Your task to perform on an android device: open app "LiveIn - Share Your Moment" Image 0: 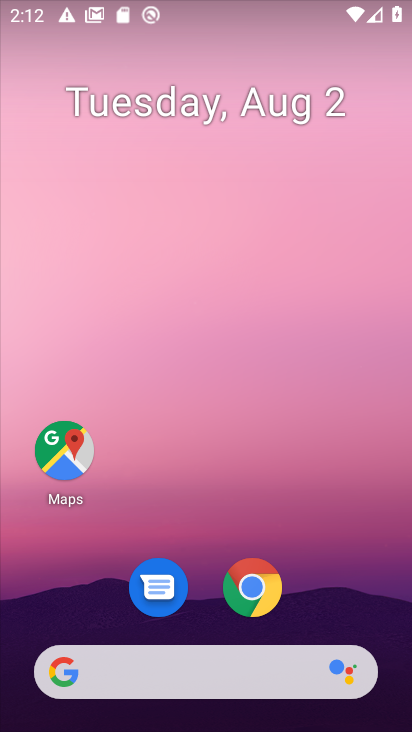
Step 0: drag from (201, 568) to (240, 186)
Your task to perform on an android device: open app "LiveIn - Share Your Moment" Image 1: 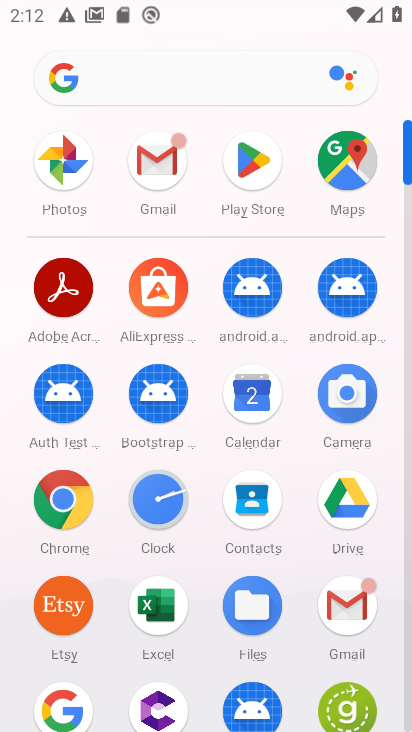
Step 1: click (242, 183)
Your task to perform on an android device: open app "LiveIn - Share Your Moment" Image 2: 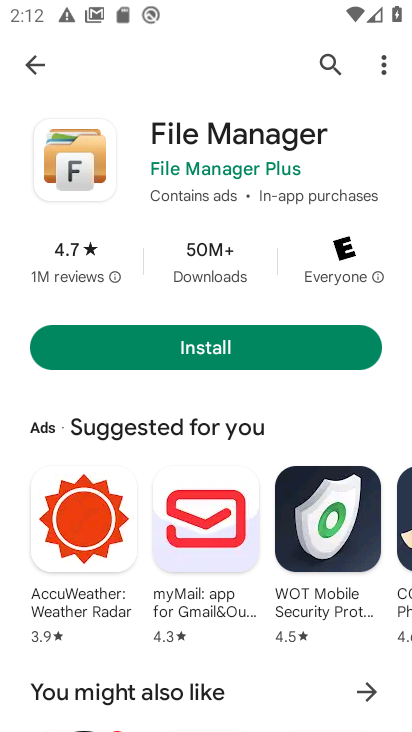
Step 2: click (329, 70)
Your task to perform on an android device: open app "LiveIn - Share Your Moment" Image 3: 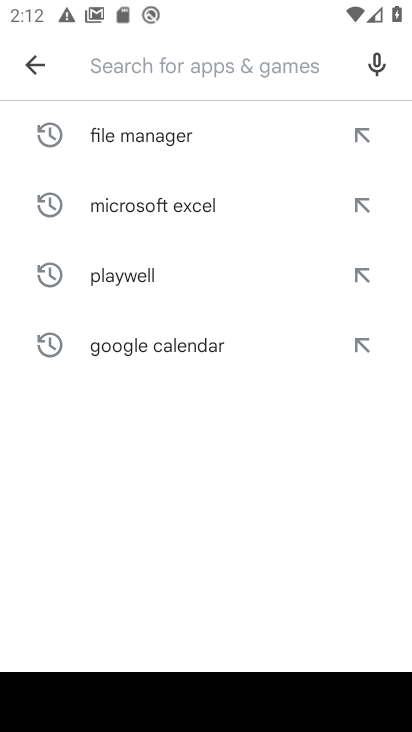
Step 3: type "LiveIn - Share Your Moment"
Your task to perform on an android device: open app "LiveIn - Share Your Moment" Image 4: 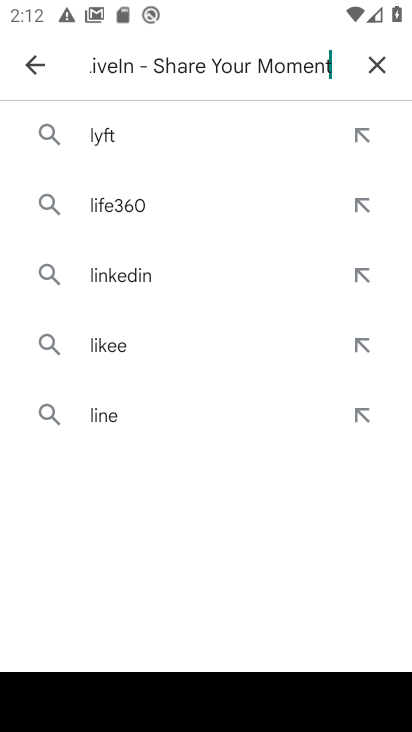
Step 4: type ""
Your task to perform on an android device: open app "LiveIn - Share Your Moment" Image 5: 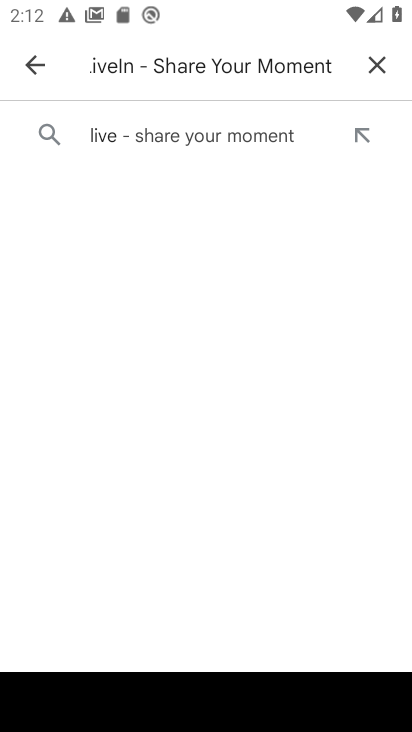
Step 5: click (210, 138)
Your task to perform on an android device: open app "LiveIn - Share Your Moment" Image 6: 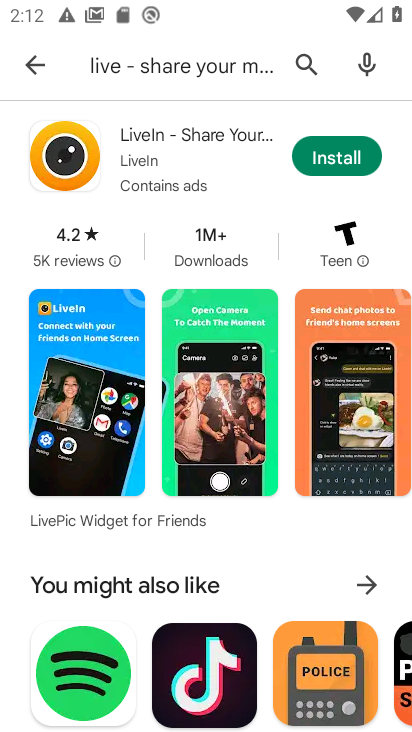
Step 6: task complete